Your task to perform on an android device: Open settings Image 0: 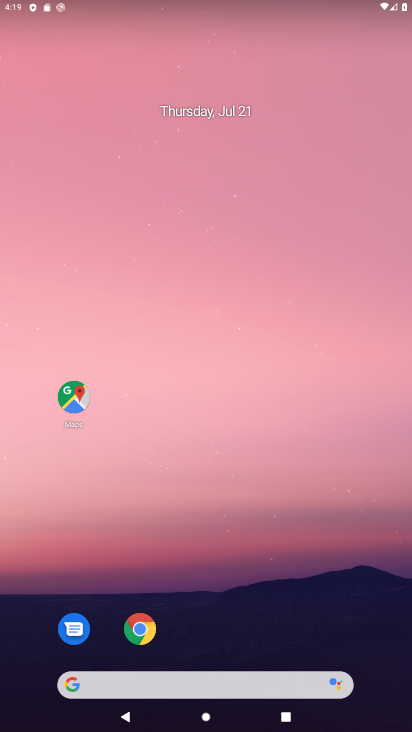
Step 0: press home button
Your task to perform on an android device: Open settings Image 1: 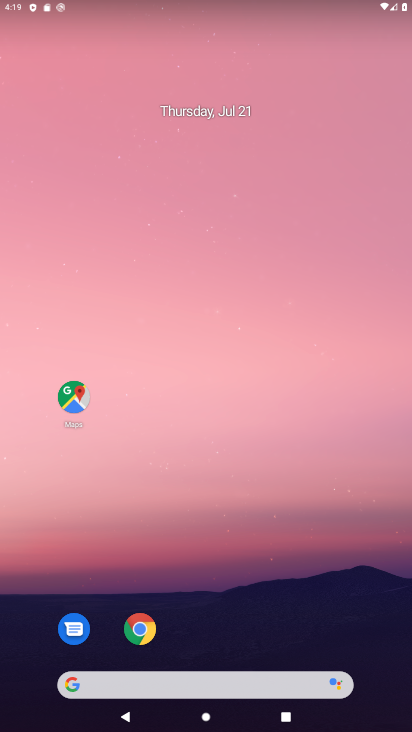
Step 1: drag from (225, 628) to (252, 66)
Your task to perform on an android device: Open settings Image 2: 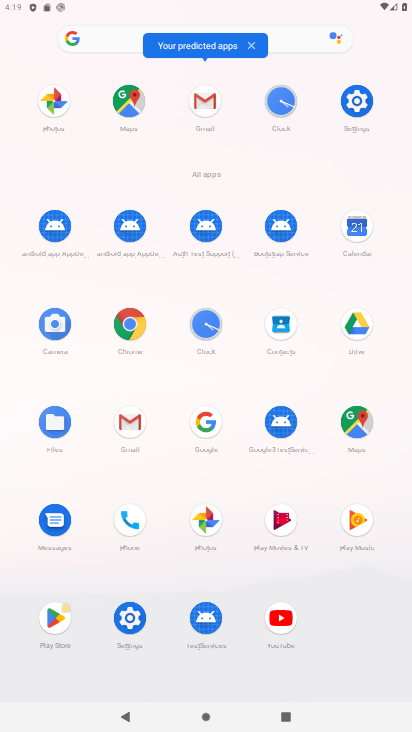
Step 2: click (353, 91)
Your task to perform on an android device: Open settings Image 3: 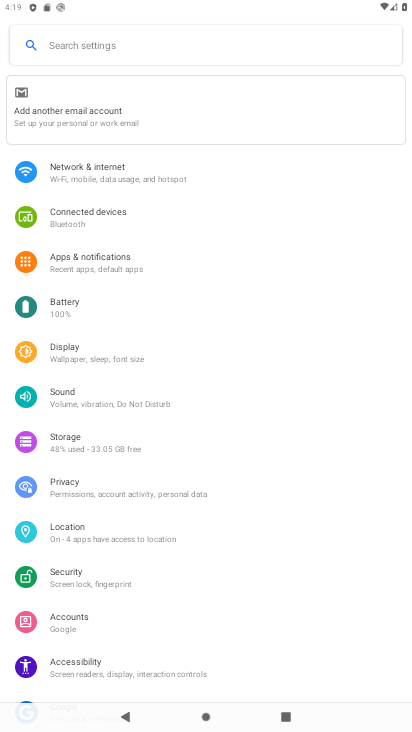
Step 3: task complete